Your task to perform on an android device: Search for seafood restaurants on Google Maps Image 0: 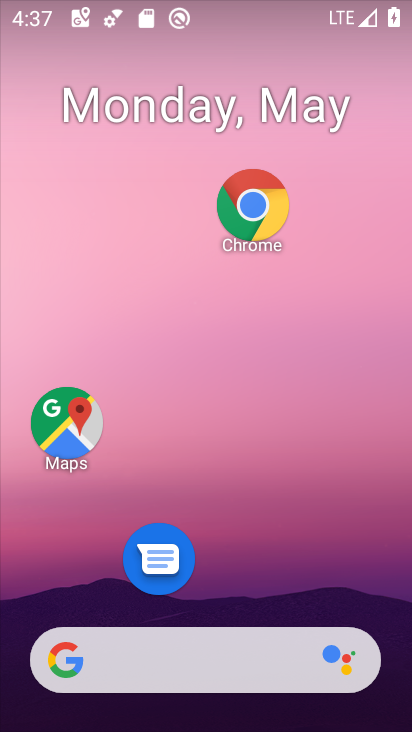
Step 0: click (80, 416)
Your task to perform on an android device: Search for seafood restaurants on Google Maps Image 1: 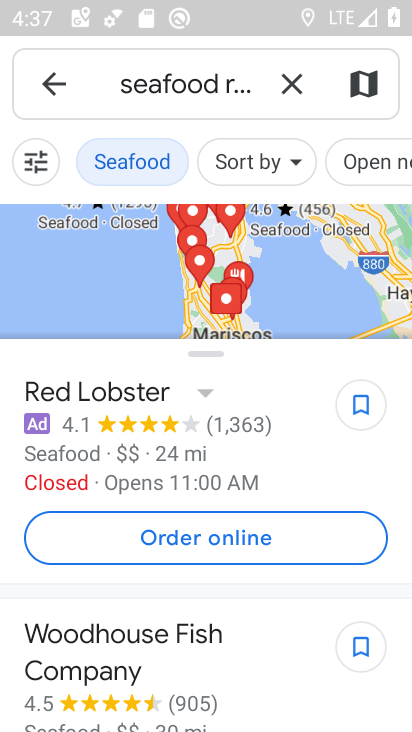
Step 1: task complete